Your task to perform on an android device: Open settings on Google Maps Image 0: 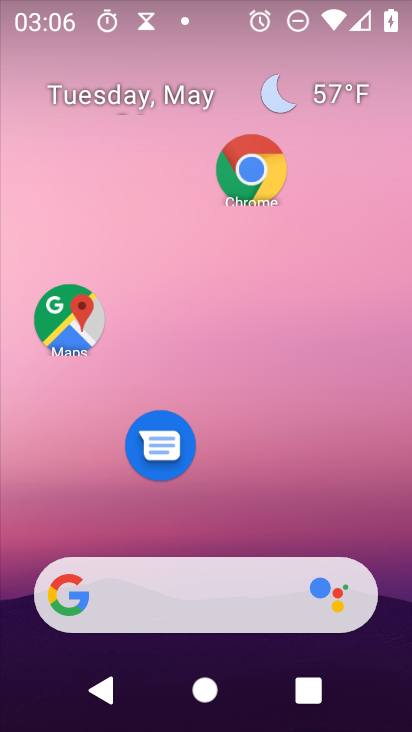
Step 0: drag from (241, 725) to (255, 37)
Your task to perform on an android device: Open settings on Google Maps Image 1: 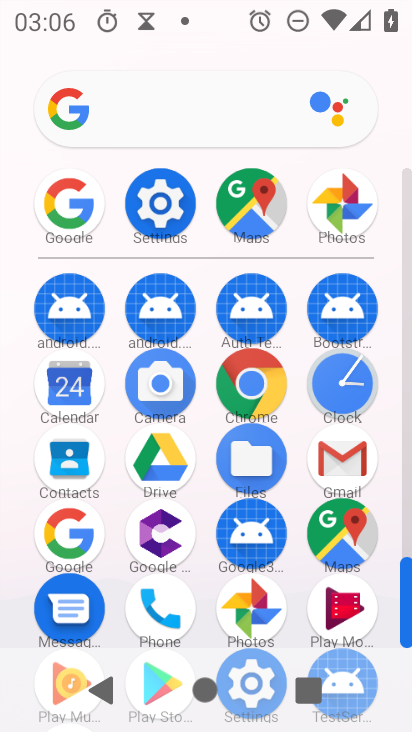
Step 1: click (338, 528)
Your task to perform on an android device: Open settings on Google Maps Image 2: 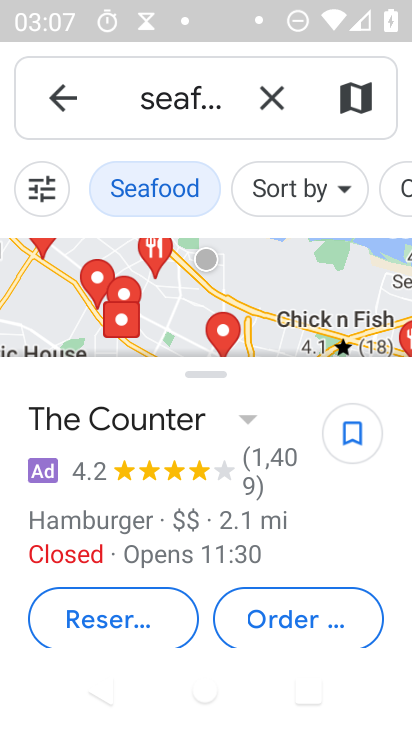
Step 2: click (60, 98)
Your task to perform on an android device: Open settings on Google Maps Image 3: 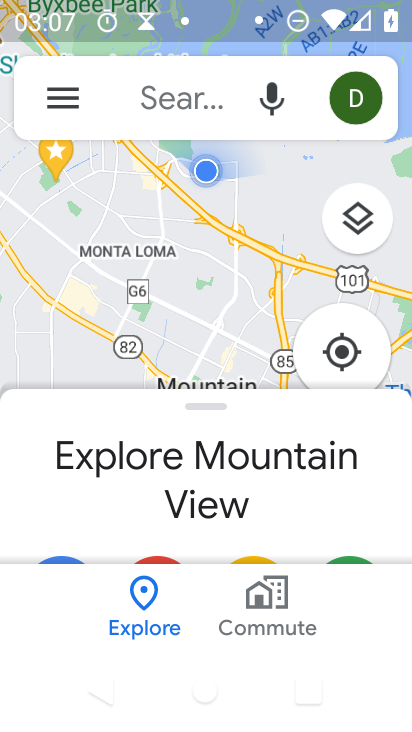
Step 3: click (55, 99)
Your task to perform on an android device: Open settings on Google Maps Image 4: 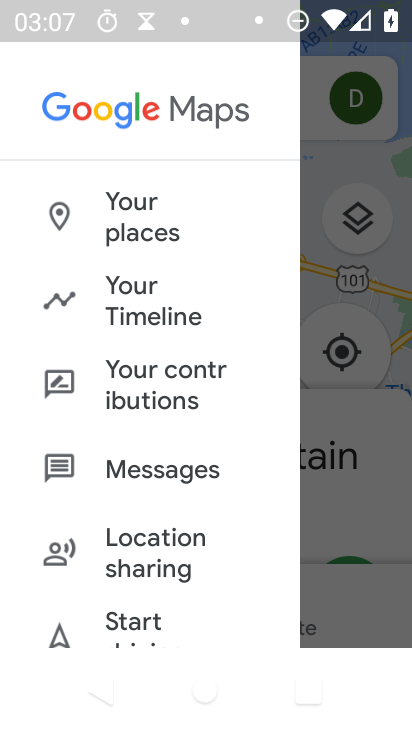
Step 4: drag from (159, 624) to (155, 202)
Your task to perform on an android device: Open settings on Google Maps Image 5: 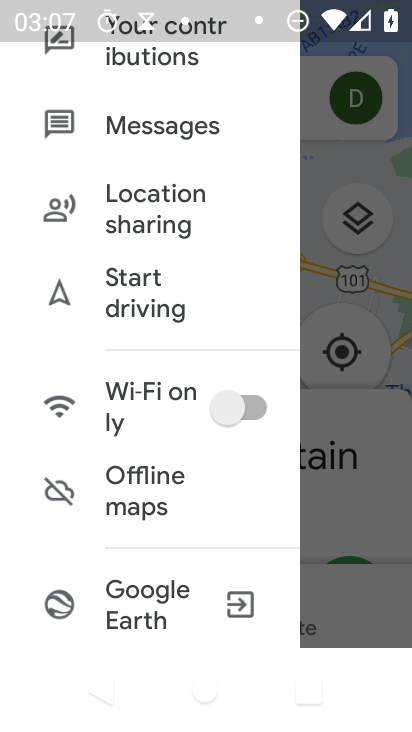
Step 5: drag from (127, 595) to (139, 132)
Your task to perform on an android device: Open settings on Google Maps Image 6: 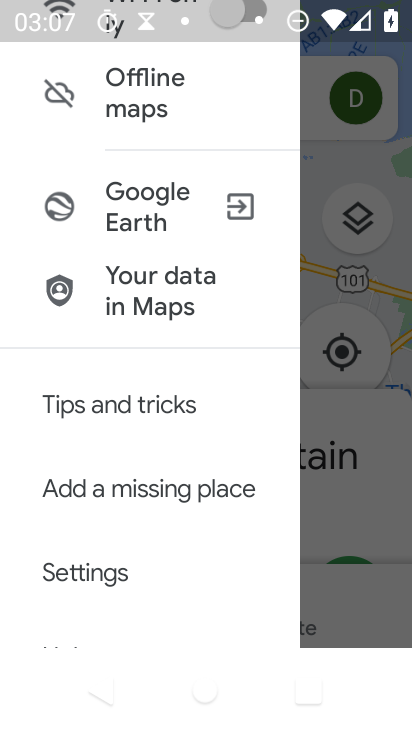
Step 6: click (87, 574)
Your task to perform on an android device: Open settings on Google Maps Image 7: 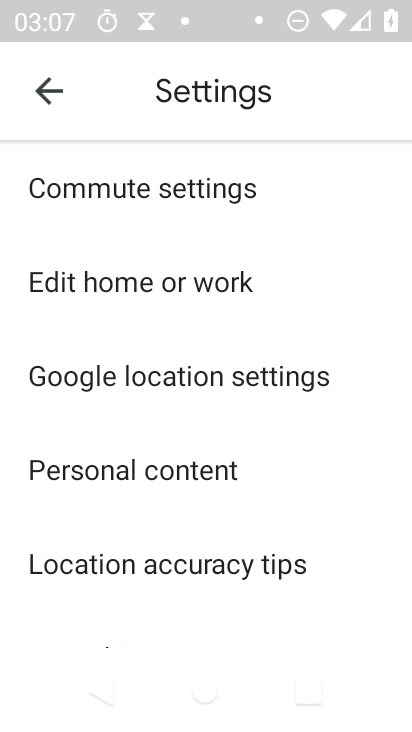
Step 7: task complete